Your task to perform on an android device: check android version Image 0: 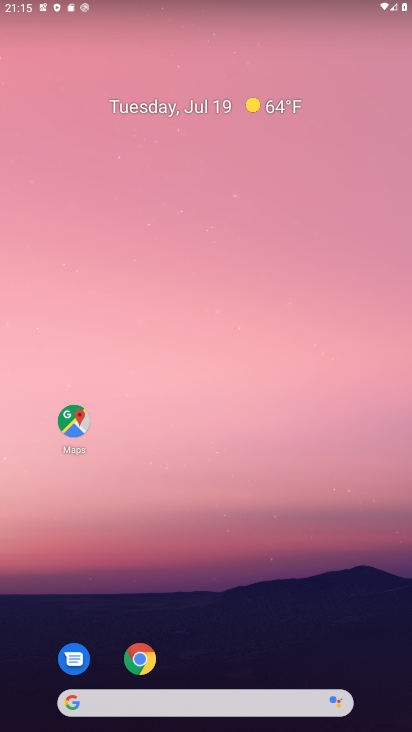
Step 0: drag from (193, 672) to (188, 254)
Your task to perform on an android device: check android version Image 1: 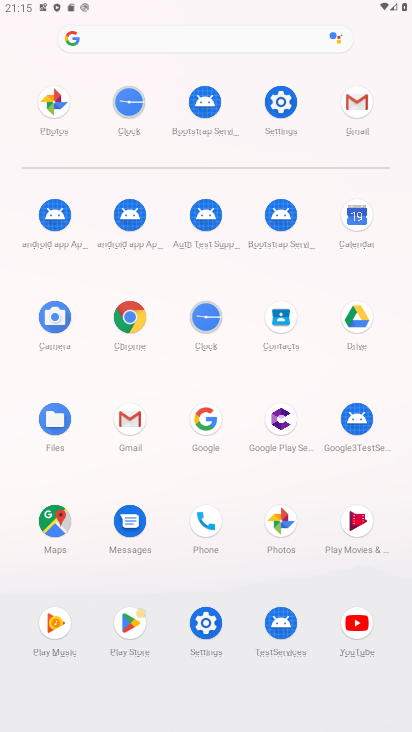
Step 1: click (288, 105)
Your task to perform on an android device: check android version Image 2: 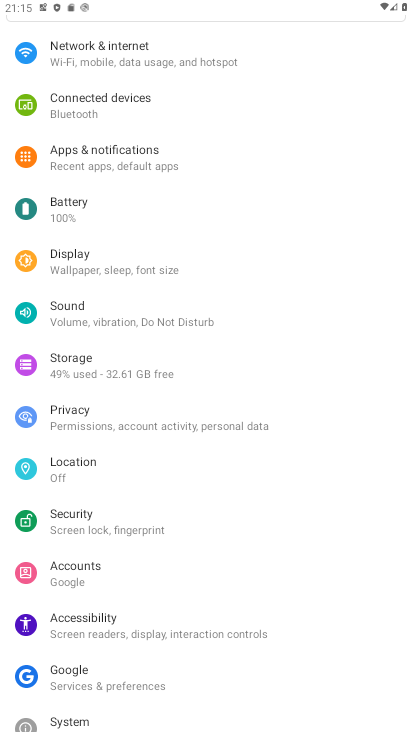
Step 2: drag from (130, 695) to (140, 182)
Your task to perform on an android device: check android version Image 3: 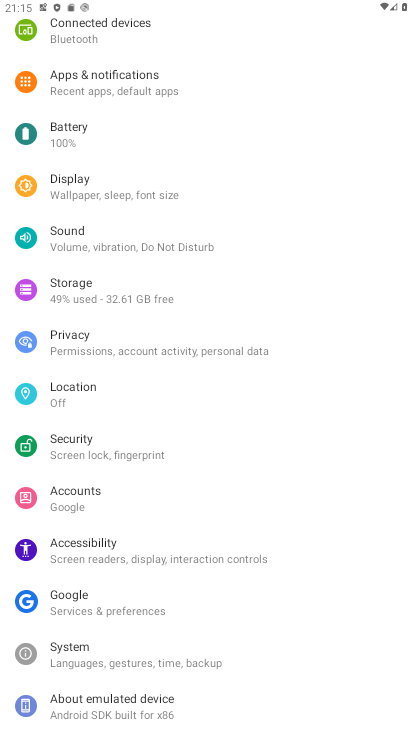
Step 3: click (74, 716)
Your task to perform on an android device: check android version Image 4: 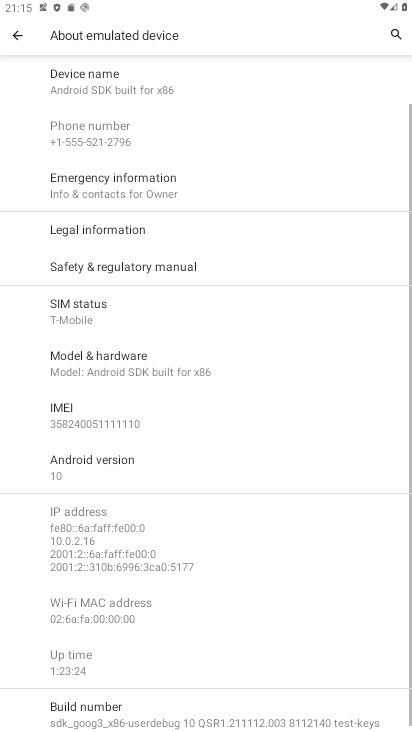
Step 4: click (131, 479)
Your task to perform on an android device: check android version Image 5: 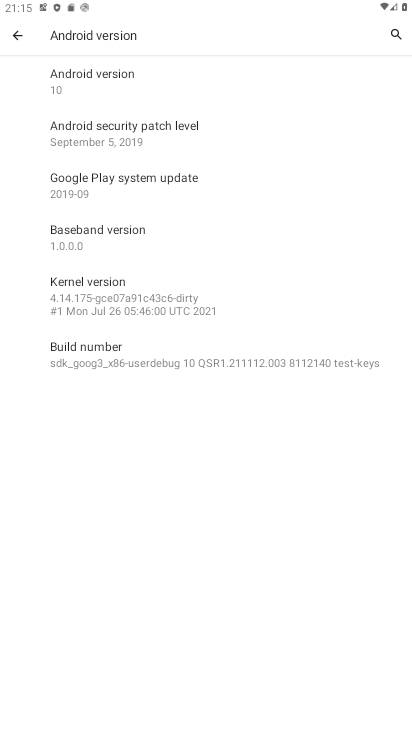
Step 5: task complete